Your task to perform on an android device: Search for electric lawnmowers on Home Depot Image 0: 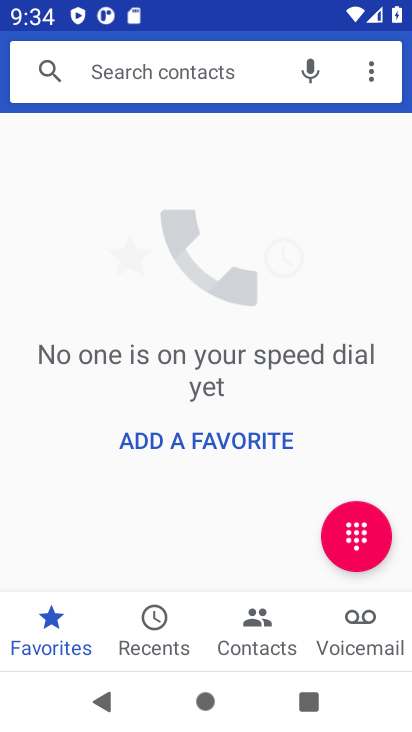
Step 0: press home button
Your task to perform on an android device: Search for electric lawnmowers on Home Depot Image 1: 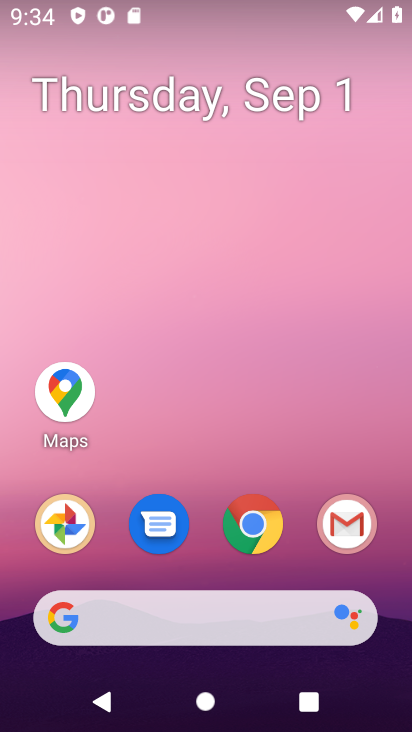
Step 1: drag from (388, 570) to (400, 61)
Your task to perform on an android device: Search for electric lawnmowers on Home Depot Image 2: 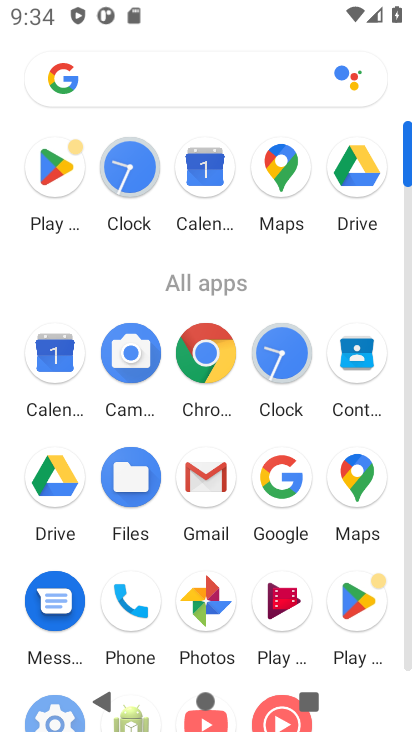
Step 2: click (207, 359)
Your task to perform on an android device: Search for electric lawnmowers on Home Depot Image 3: 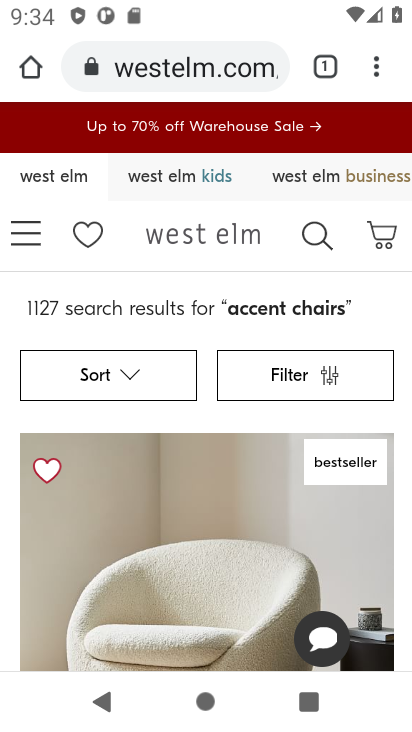
Step 3: click (212, 67)
Your task to perform on an android device: Search for electric lawnmowers on Home Depot Image 4: 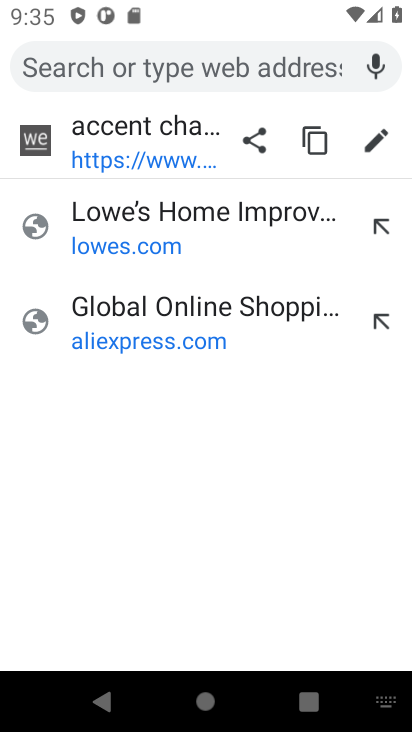
Step 4: type "home depot"
Your task to perform on an android device: Search for electric lawnmowers on Home Depot Image 5: 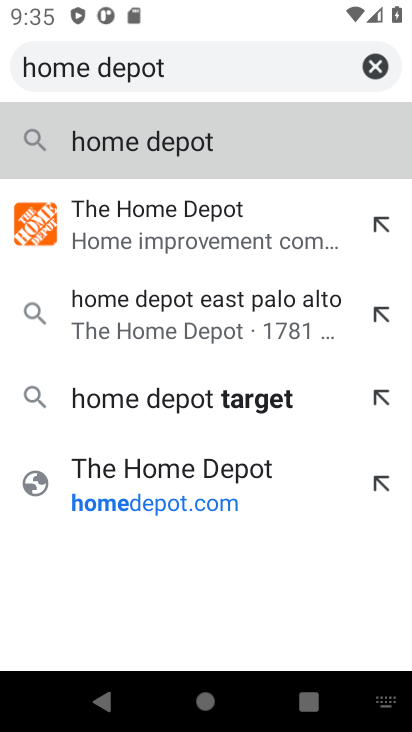
Step 5: press enter
Your task to perform on an android device: Search for electric lawnmowers on Home Depot Image 6: 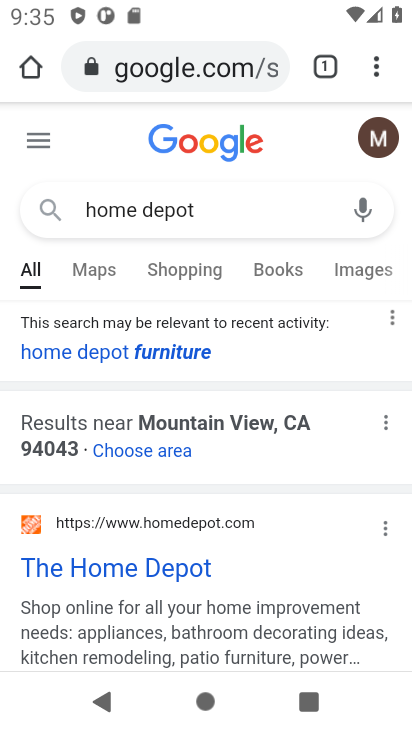
Step 6: click (172, 573)
Your task to perform on an android device: Search for electric lawnmowers on Home Depot Image 7: 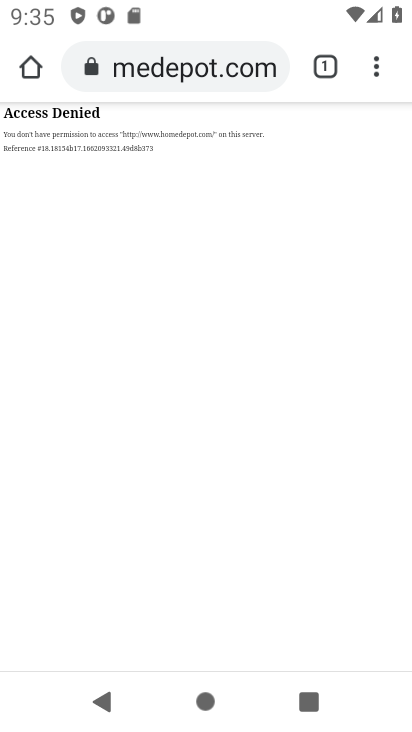
Step 7: press back button
Your task to perform on an android device: Search for electric lawnmowers on Home Depot Image 8: 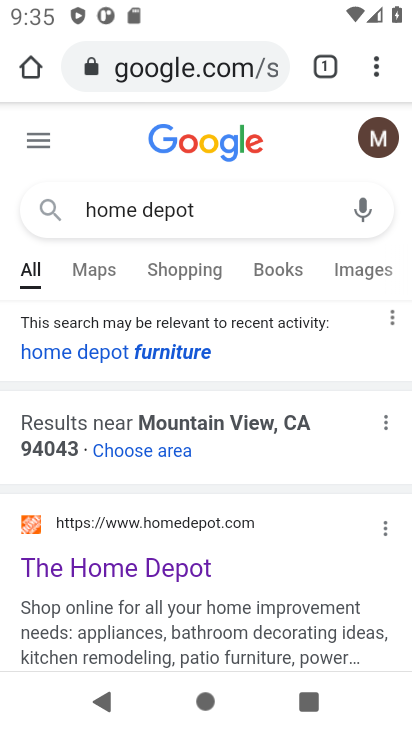
Step 8: drag from (272, 587) to (284, 264)
Your task to perform on an android device: Search for electric lawnmowers on Home Depot Image 9: 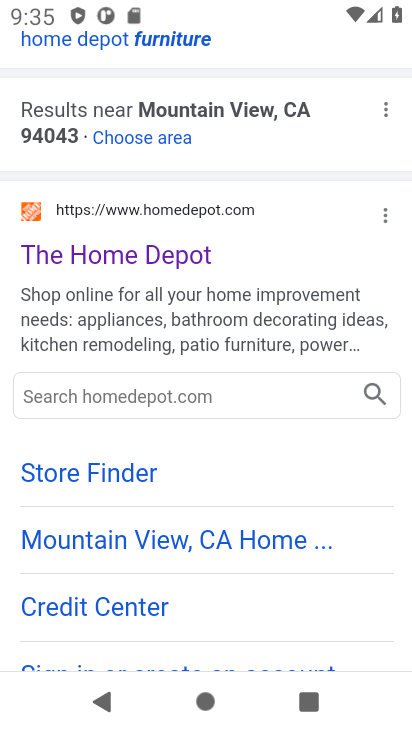
Step 9: drag from (279, 253) to (287, 450)
Your task to perform on an android device: Search for electric lawnmowers on Home Depot Image 10: 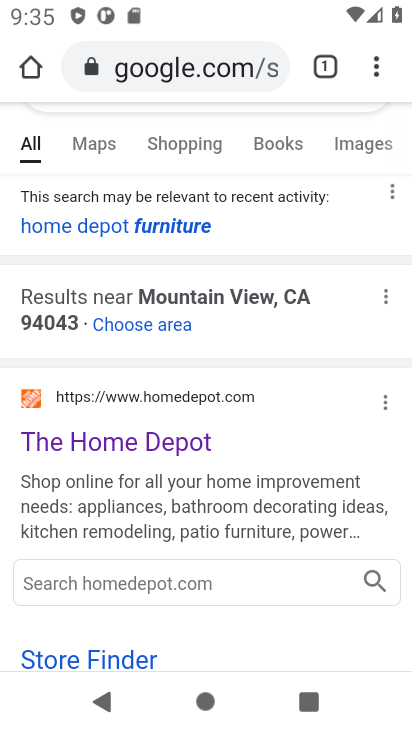
Step 10: click (163, 222)
Your task to perform on an android device: Search for electric lawnmowers on Home Depot Image 11: 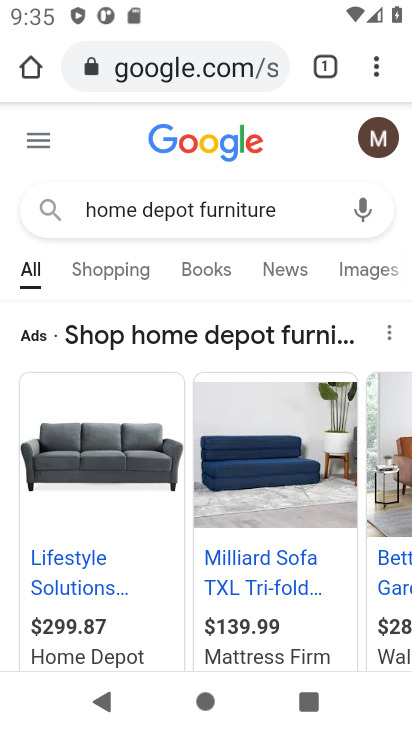
Step 11: drag from (199, 420) to (218, 199)
Your task to perform on an android device: Search for electric lawnmowers on Home Depot Image 12: 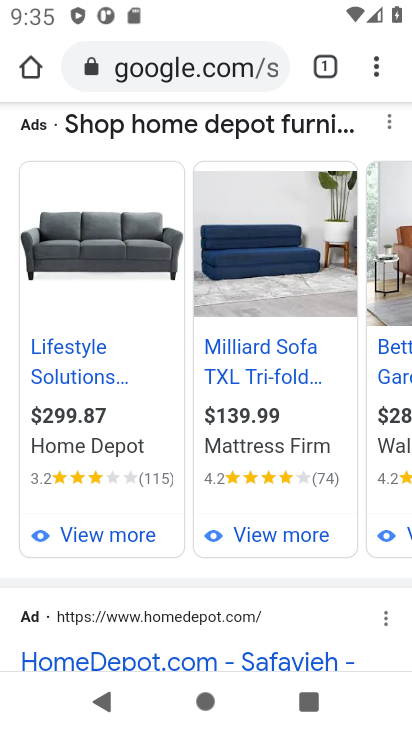
Step 12: drag from (249, 567) to (243, 250)
Your task to perform on an android device: Search for electric lawnmowers on Home Depot Image 13: 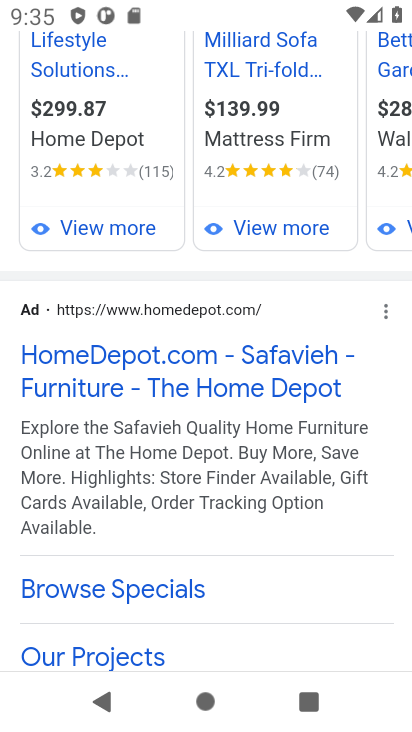
Step 13: drag from (264, 581) to (240, 364)
Your task to perform on an android device: Search for electric lawnmowers on Home Depot Image 14: 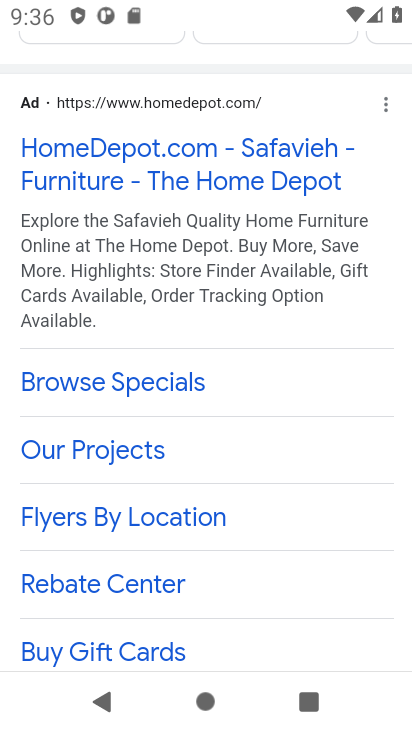
Step 14: click (229, 169)
Your task to perform on an android device: Search for electric lawnmowers on Home Depot Image 15: 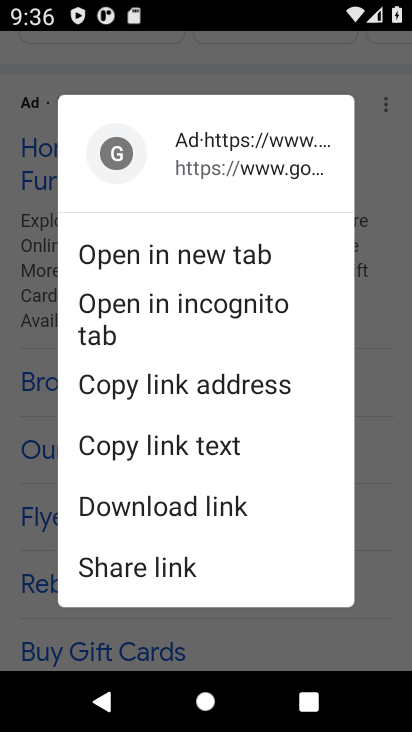
Step 15: click (237, 256)
Your task to perform on an android device: Search for electric lawnmowers on Home Depot Image 16: 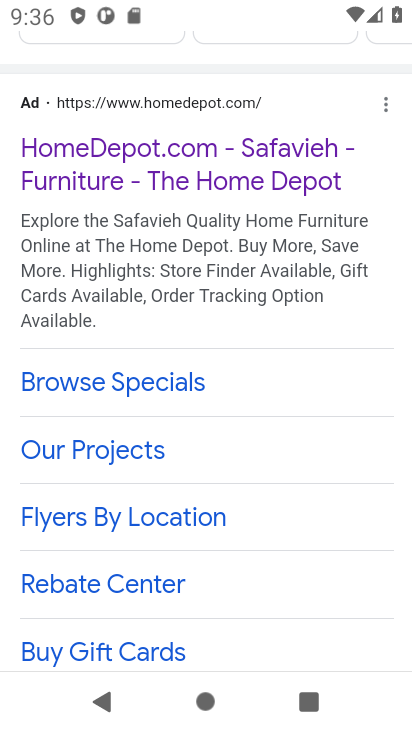
Step 16: click (177, 164)
Your task to perform on an android device: Search for electric lawnmowers on Home Depot Image 17: 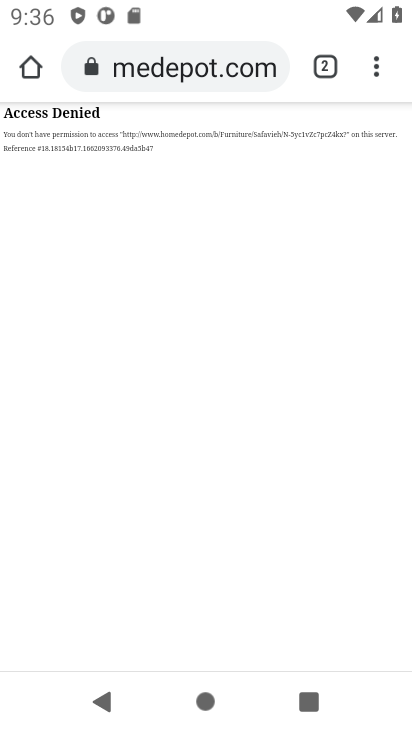
Step 17: task complete